Your task to perform on an android device: Open Google Chrome and click the shortcut for Amazon.com Image 0: 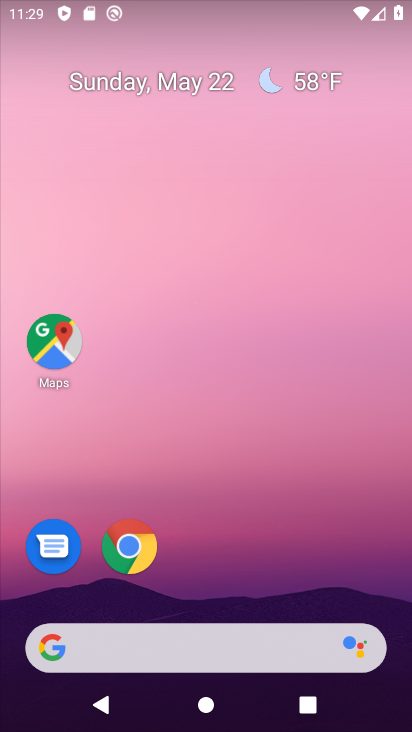
Step 0: click (126, 545)
Your task to perform on an android device: Open Google Chrome and click the shortcut for Amazon.com Image 1: 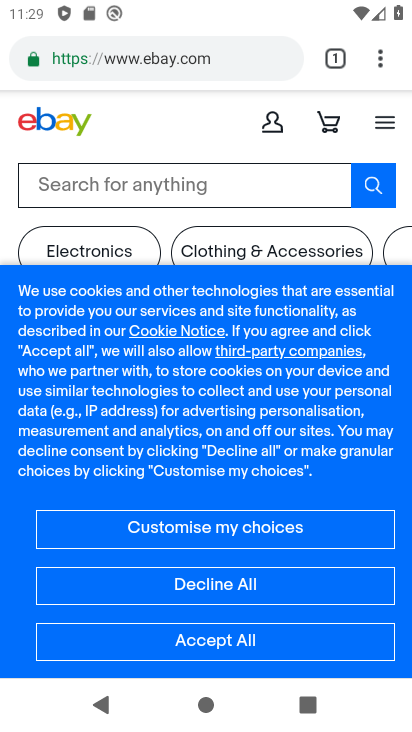
Step 1: click (380, 62)
Your task to perform on an android device: Open Google Chrome and click the shortcut for Amazon.com Image 2: 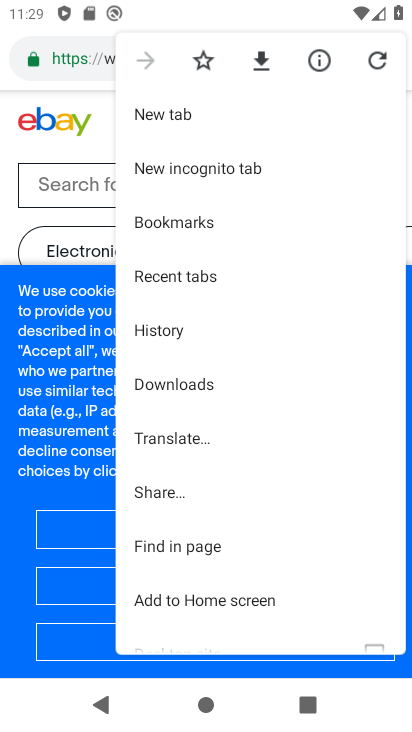
Step 2: click (163, 115)
Your task to perform on an android device: Open Google Chrome and click the shortcut for Amazon.com Image 3: 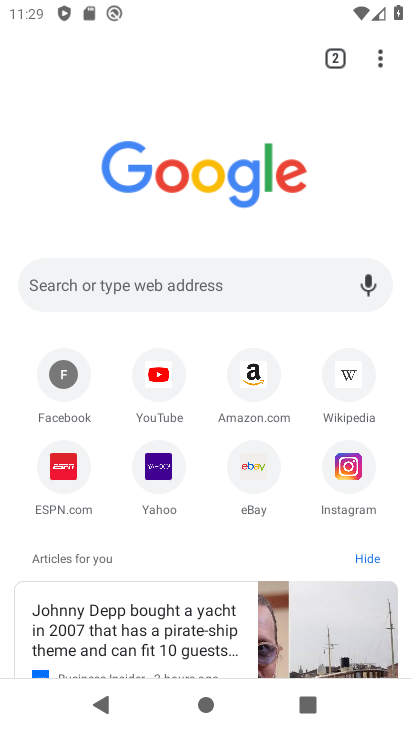
Step 3: click (252, 370)
Your task to perform on an android device: Open Google Chrome and click the shortcut for Amazon.com Image 4: 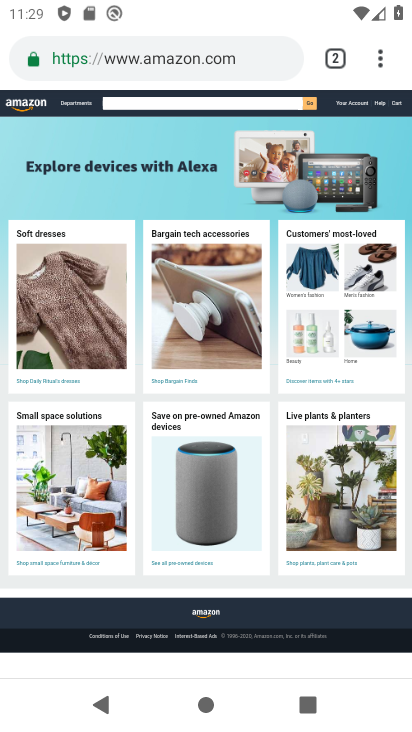
Step 4: task complete